Your task to perform on an android device: allow notifications from all sites in the chrome app Image 0: 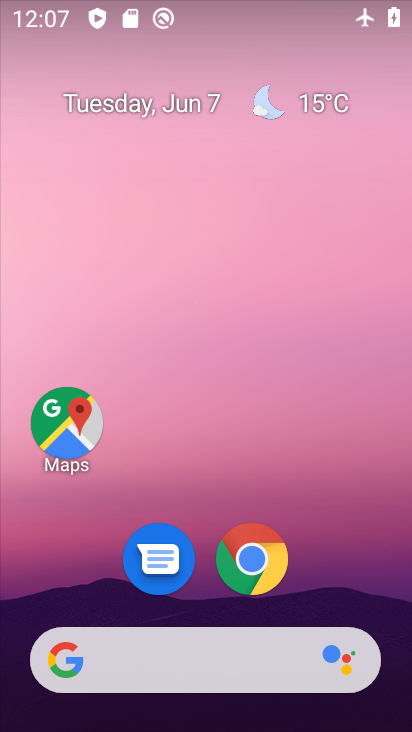
Step 0: click (251, 560)
Your task to perform on an android device: allow notifications from all sites in the chrome app Image 1: 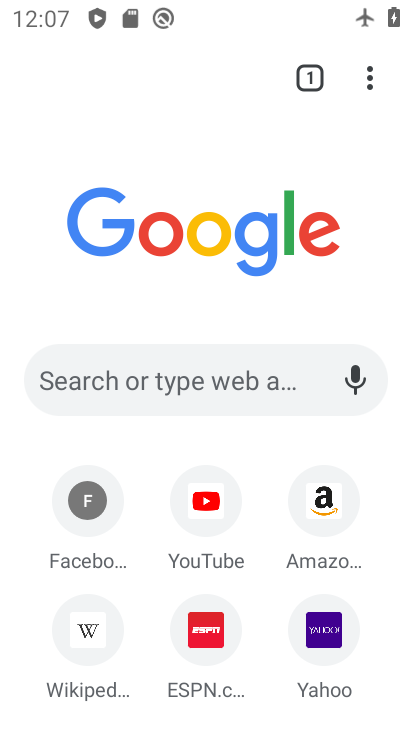
Step 1: click (367, 79)
Your task to perform on an android device: allow notifications from all sites in the chrome app Image 2: 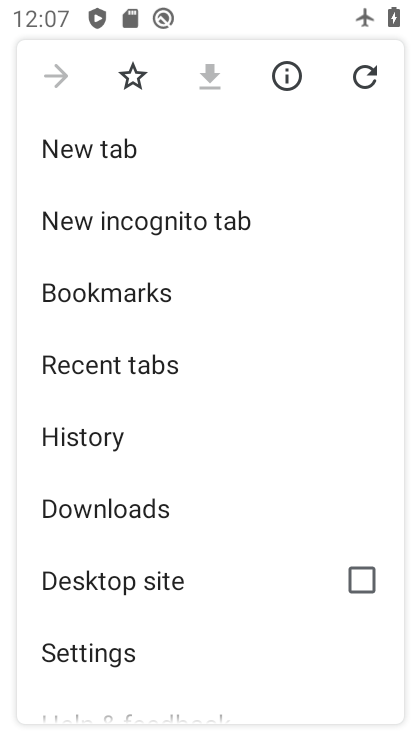
Step 2: click (68, 653)
Your task to perform on an android device: allow notifications from all sites in the chrome app Image 3: 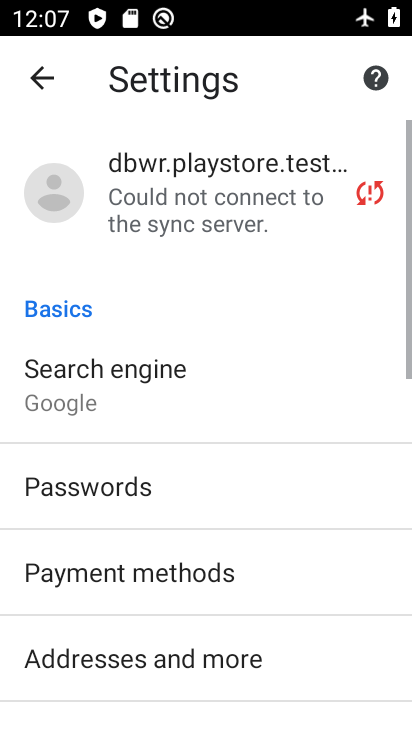
Step 3: drag from (291, 656) to (258, 233)
Your task to perform on an android device: allow notifications from all sites in the chrome app Image 4: 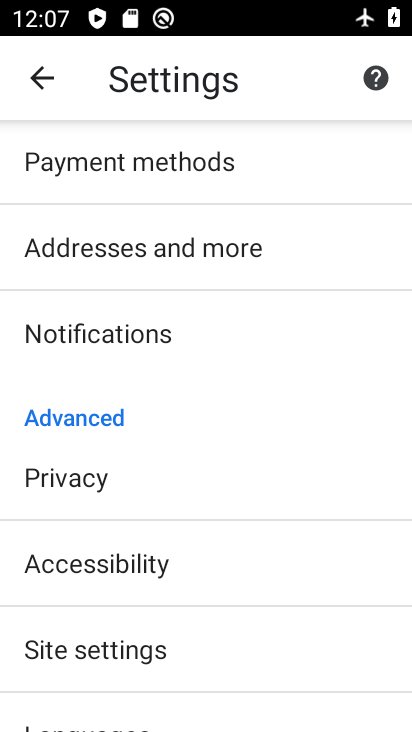
Step 4: drag from (244, 643) to (269, 309)
Your task to perform on an android device: allow notifications from all sites in the chrome app Image 5: 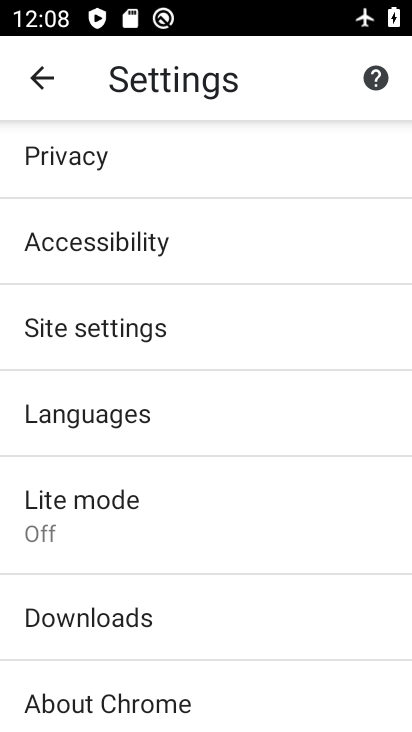
Step 5: click (91, 324)
Your task to perform on an android device: allow notifications from all sites in the chrome app Image 6: 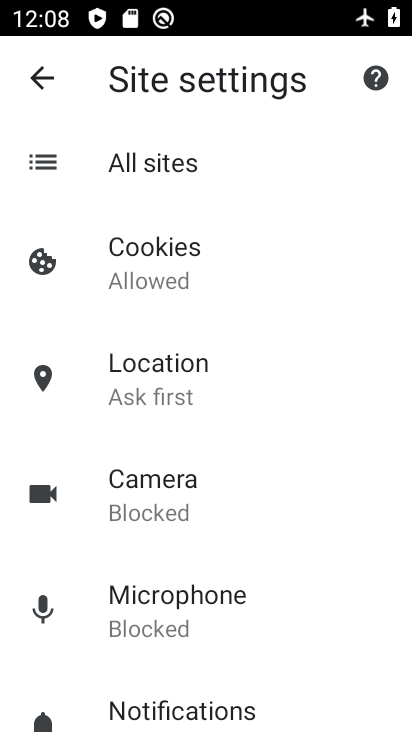
Step 6: drag from (278, 601) to (257, 250)
Your task to perform on an android device: allow notifications from all sites in the chrome app Image 7: 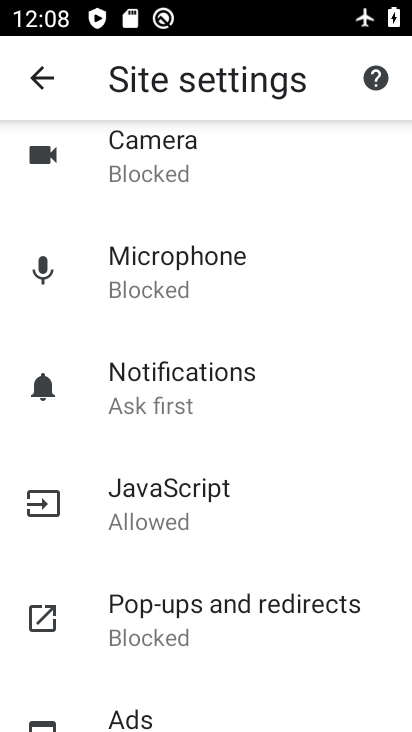
Step 7: click (186, 387)
Your task to perform on an android device: allow notifications from all sites in the chrome app Image 8: 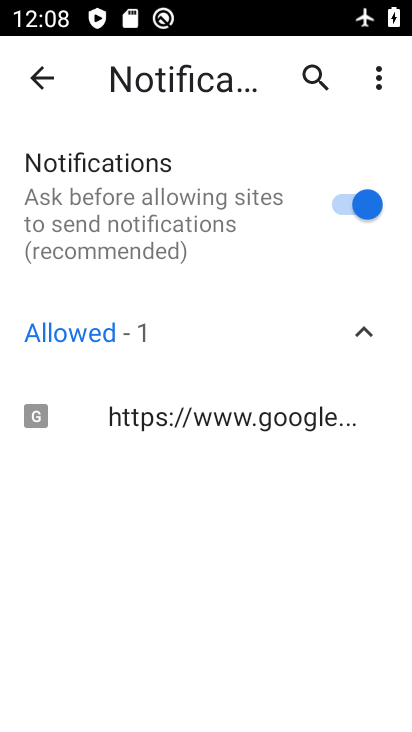
Step 8: task complete